Your task to perform on an android device: open chrome privacy settings Image 0: 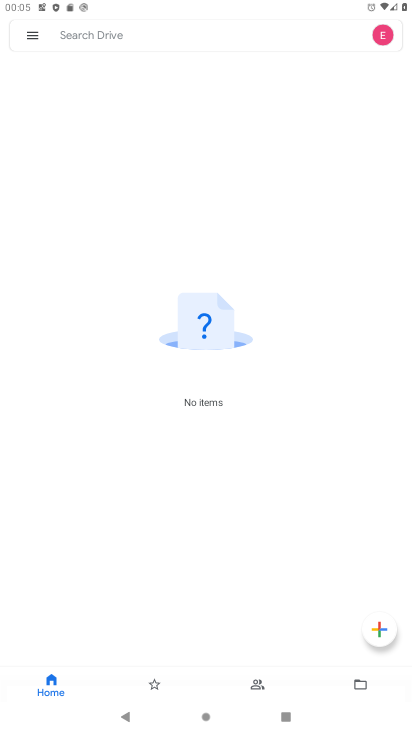
Step 0: press home button
Your task to perform on an android device: open chrome privacy settings Image 1: 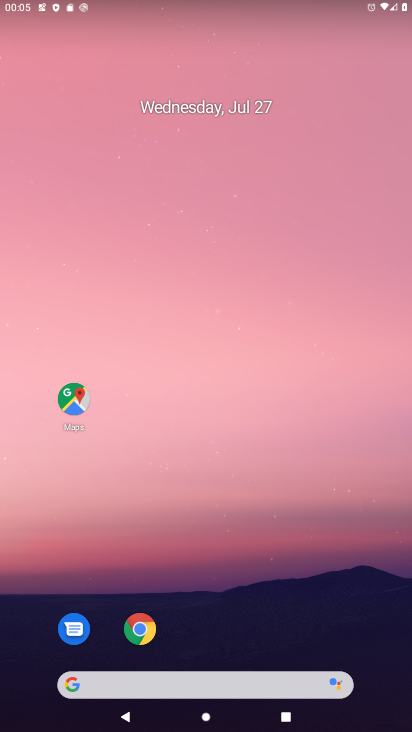
Step 1: drag from (237, 727) to (240, 334)
Your task to perform on an android device: open chrome privacy settings Image 2: 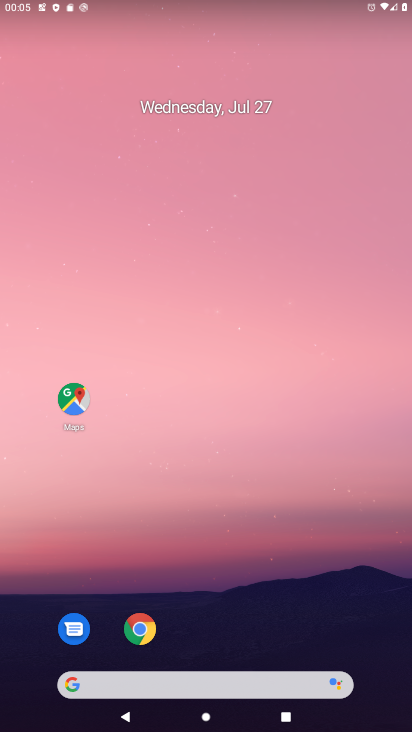
Step 2: click (140, 631)
Your task to perform on an android device: open chrome privacy settings Image 3: 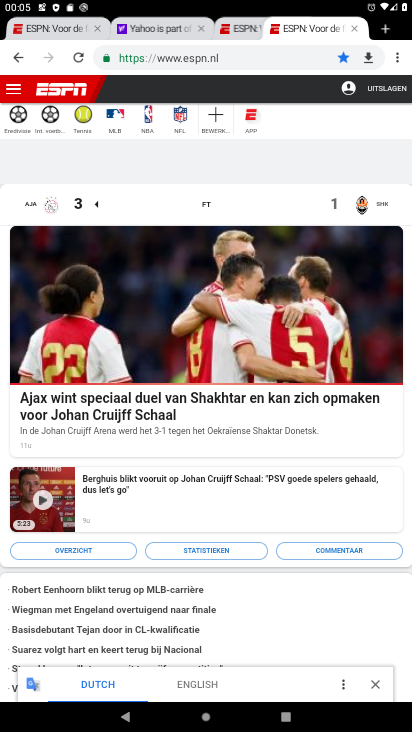
Step 3: click (397, 60)
Your task to perform on an android device: open chrome privacy settings Image 4: 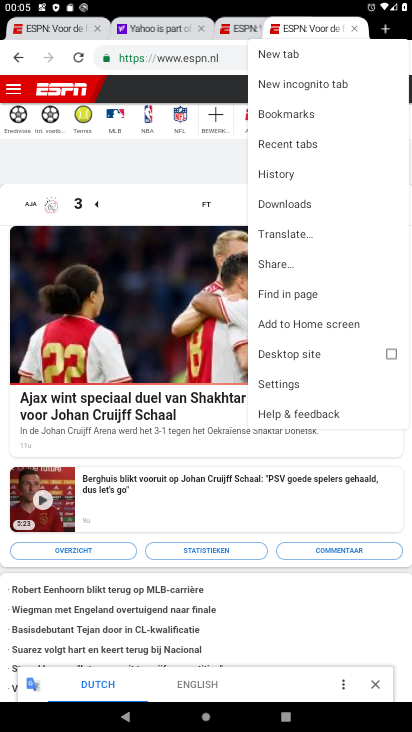
Step 4: click (284, 385)
Your task to perform on an android device: open chrome privacy settings Image 5: 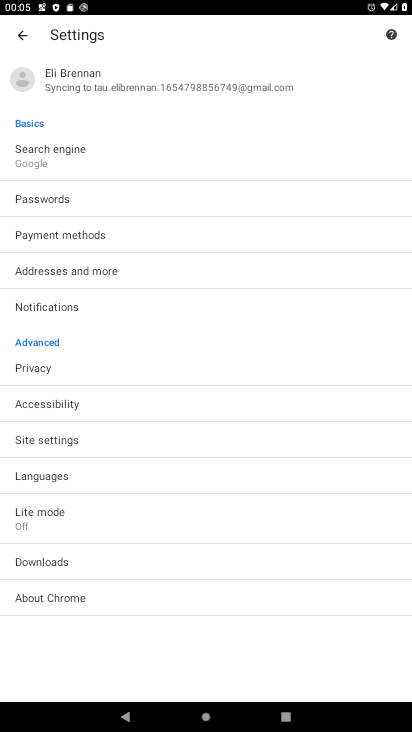
Step 5: click (40, 369)
Your task to perform on an android device: open chrome privacy settings Image 6: 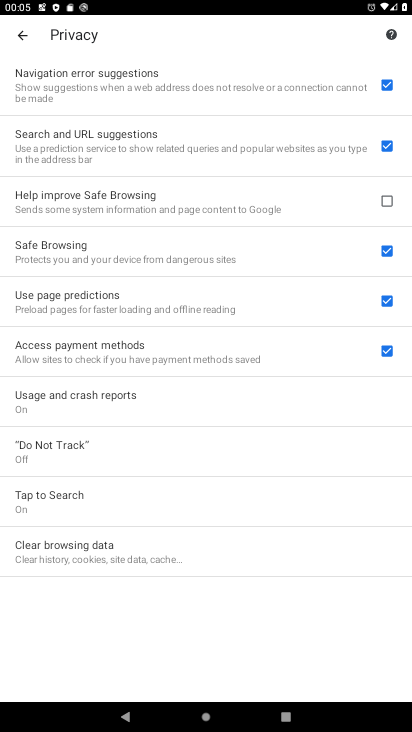
Step 6: task complete